Your task to perform on an android device: turn on data saver in the chrome app Image 0: 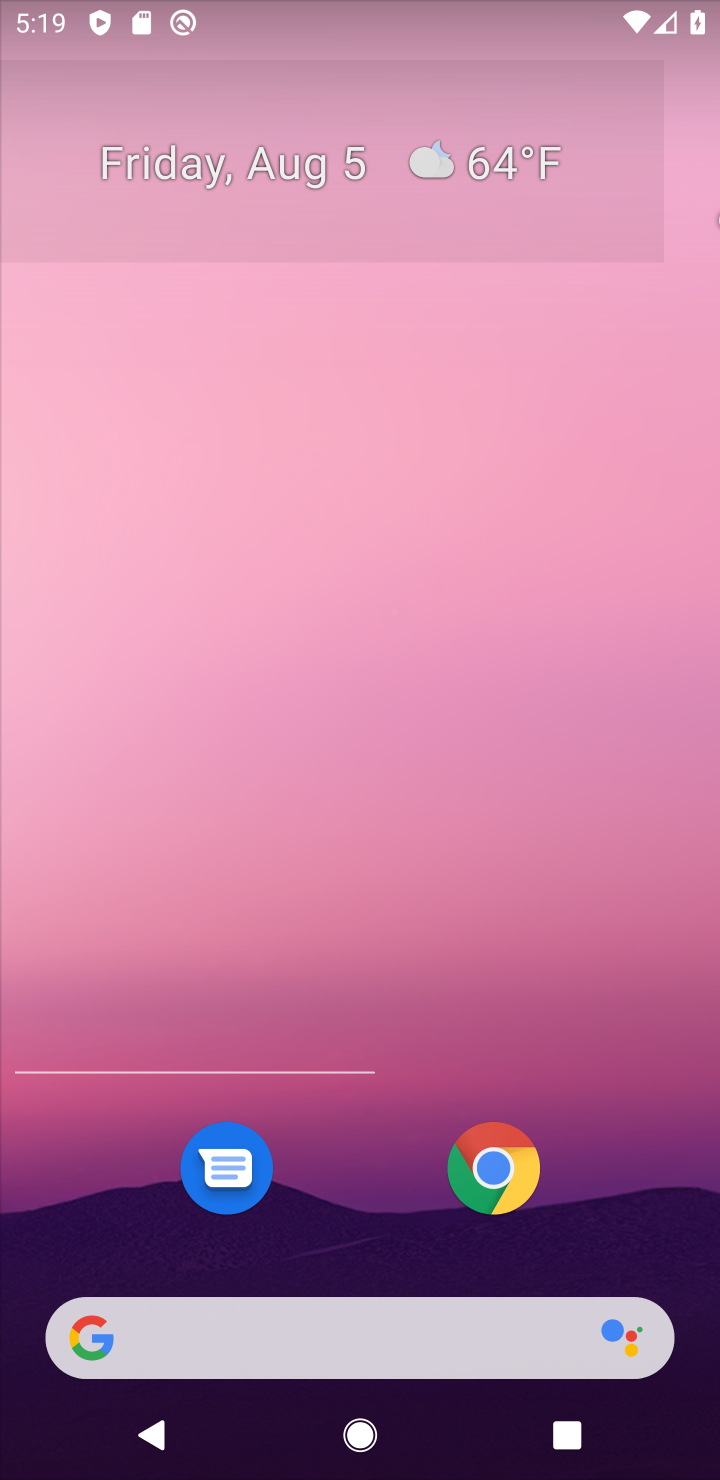
Step 0: press home button
Your task to perform on an android device: turn on data saver in the chrome app Image 1: 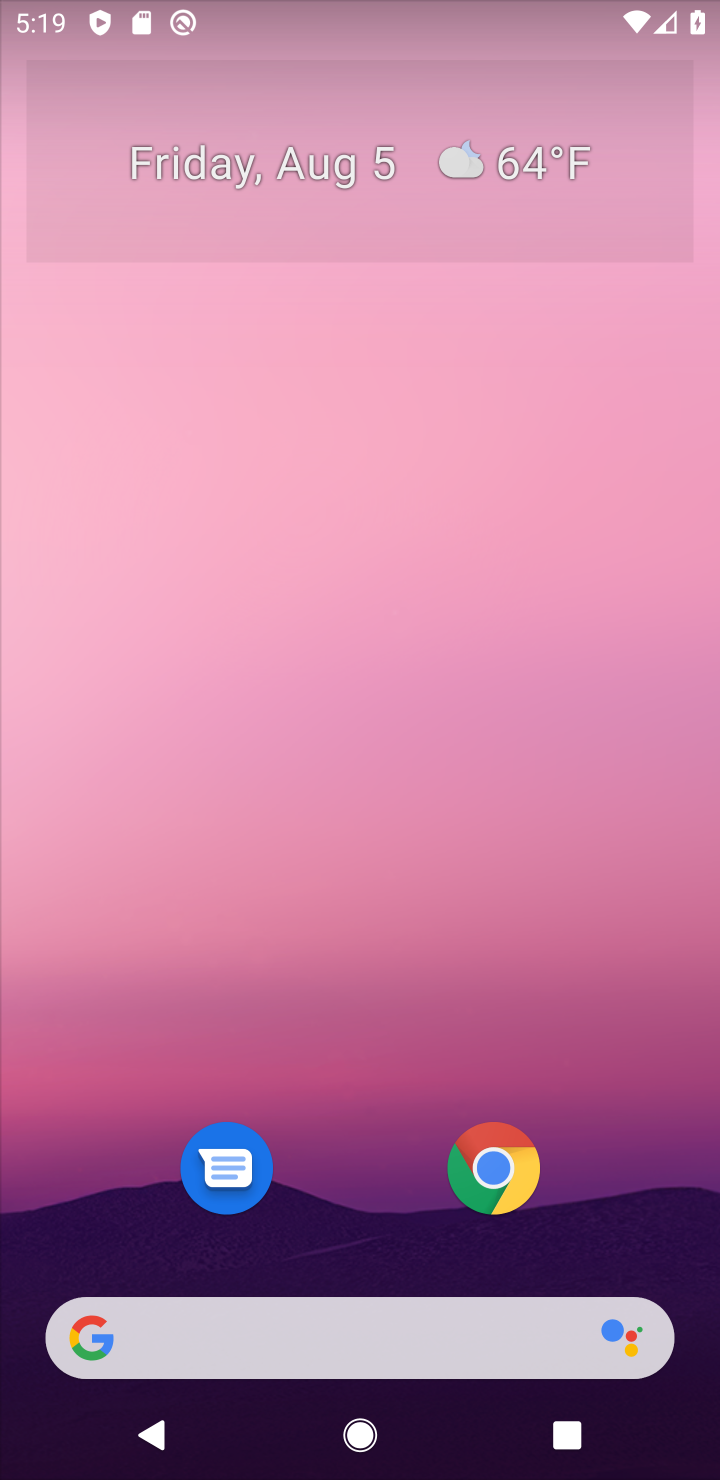
Step 1: click (457, 1180)
Your task to perform on an android device: turn on data saver in the chrome app Image 2: 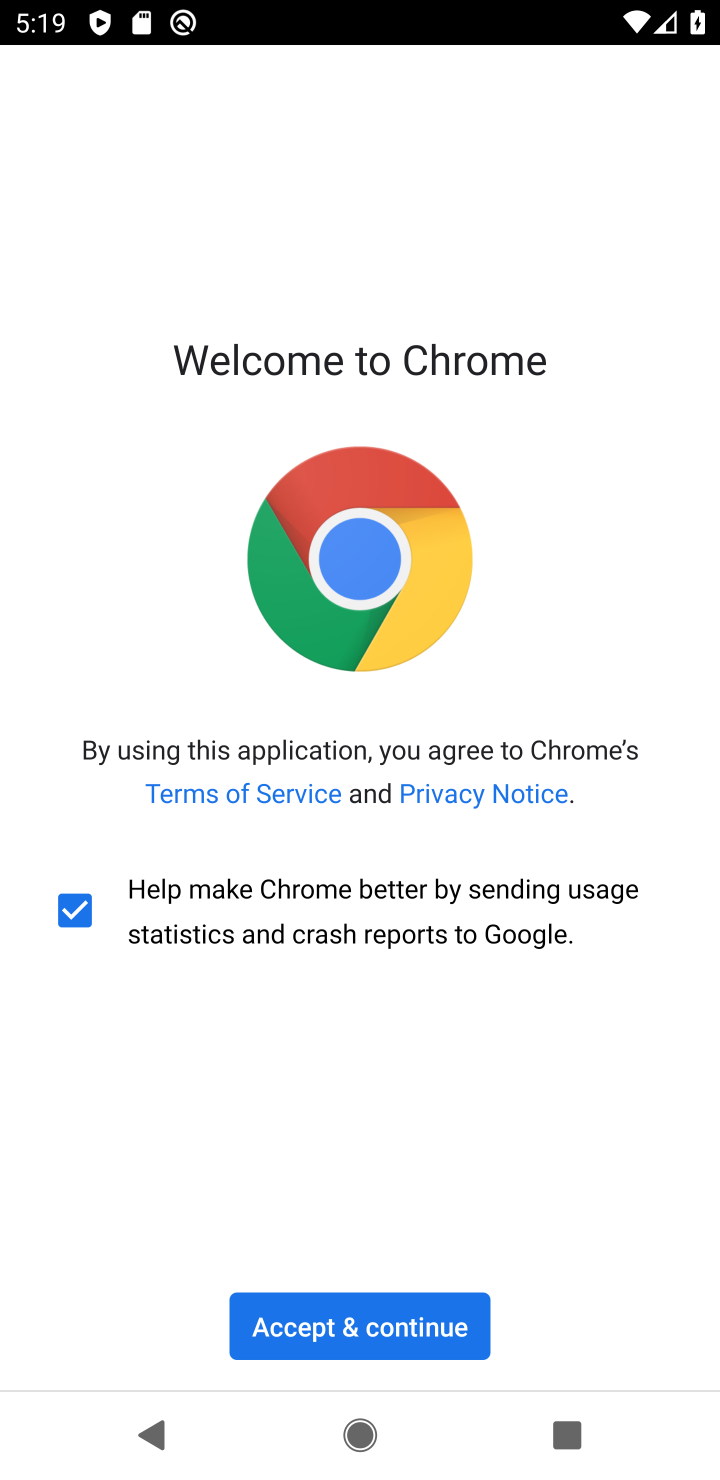
Step 2: click (382, 1325)
Your task to perform on an android device: turn on data saver in the chrome app Image 3: 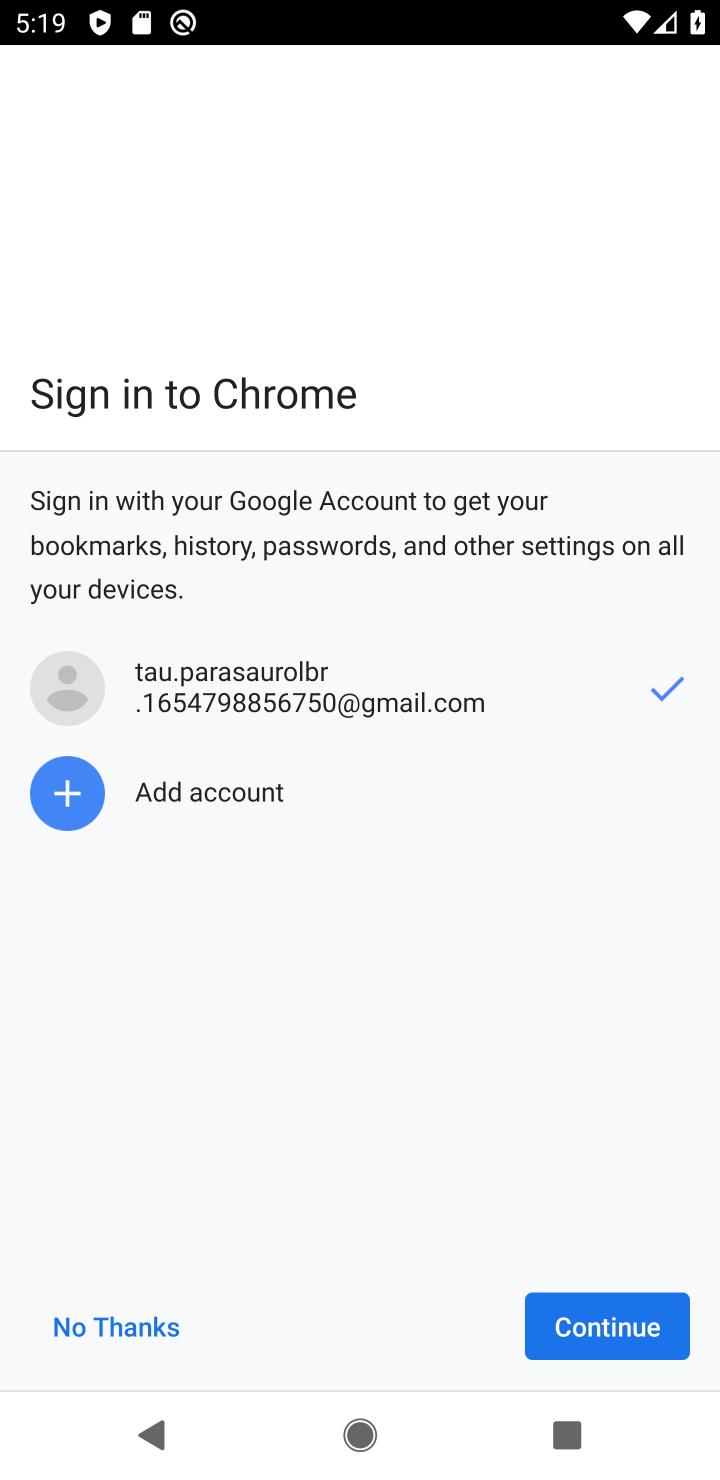
Step 3: click (563, 1327)
Your task to perform on an android device: turn on data saver in the chrome app Image 4: 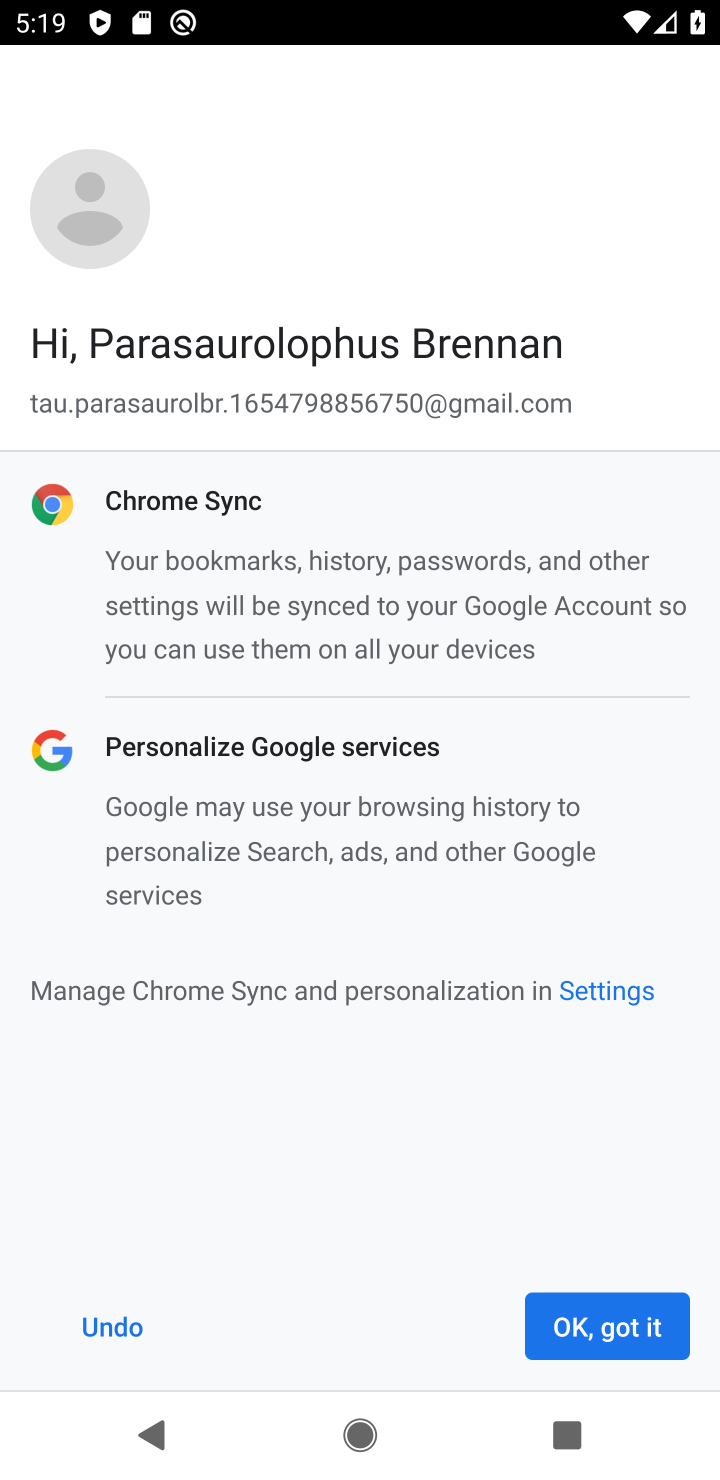
Step 4: click (563, 1327)
Your task to perform on an android device: turn on data saver in the chrome app Image 5: 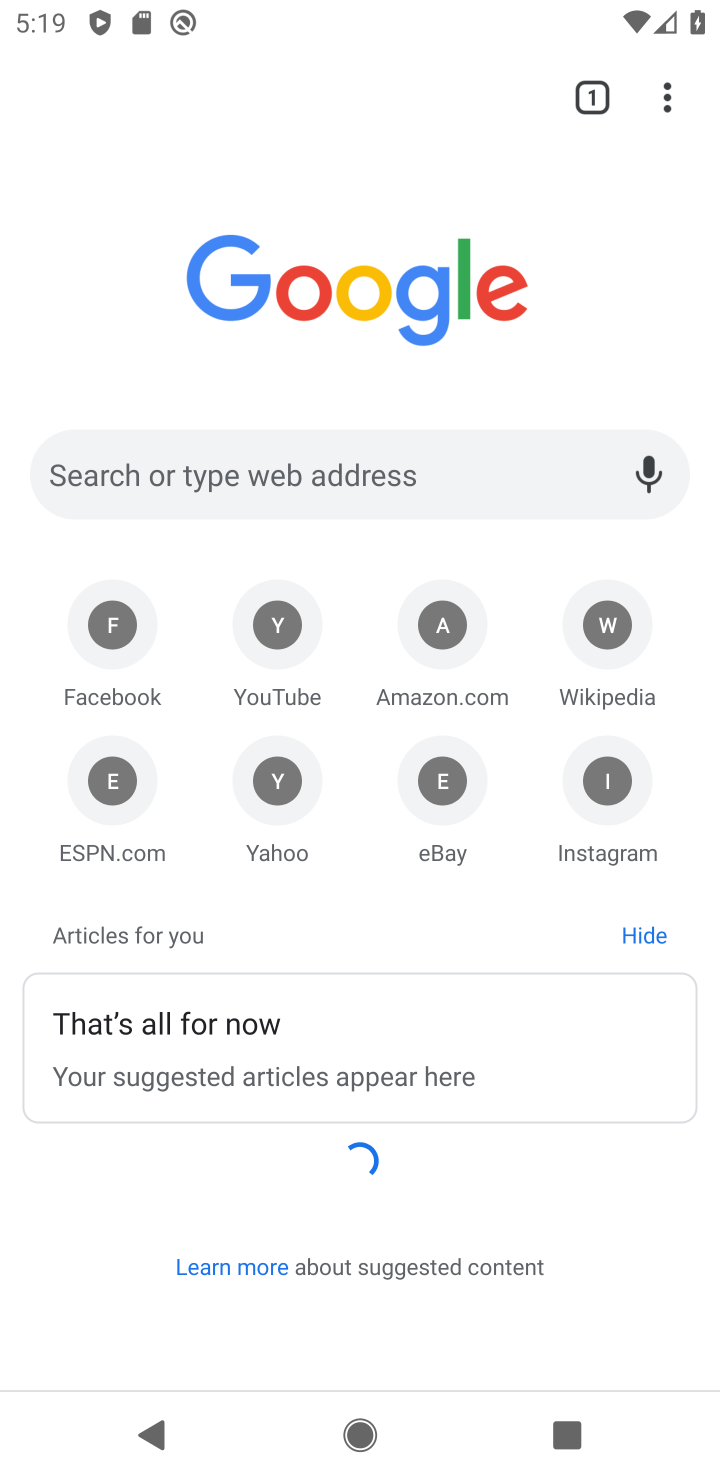
Step 5: drag from (669, 96) to (284, 813)
Your task to perform on an android device: turn on data saver in the chrome app Image 6: 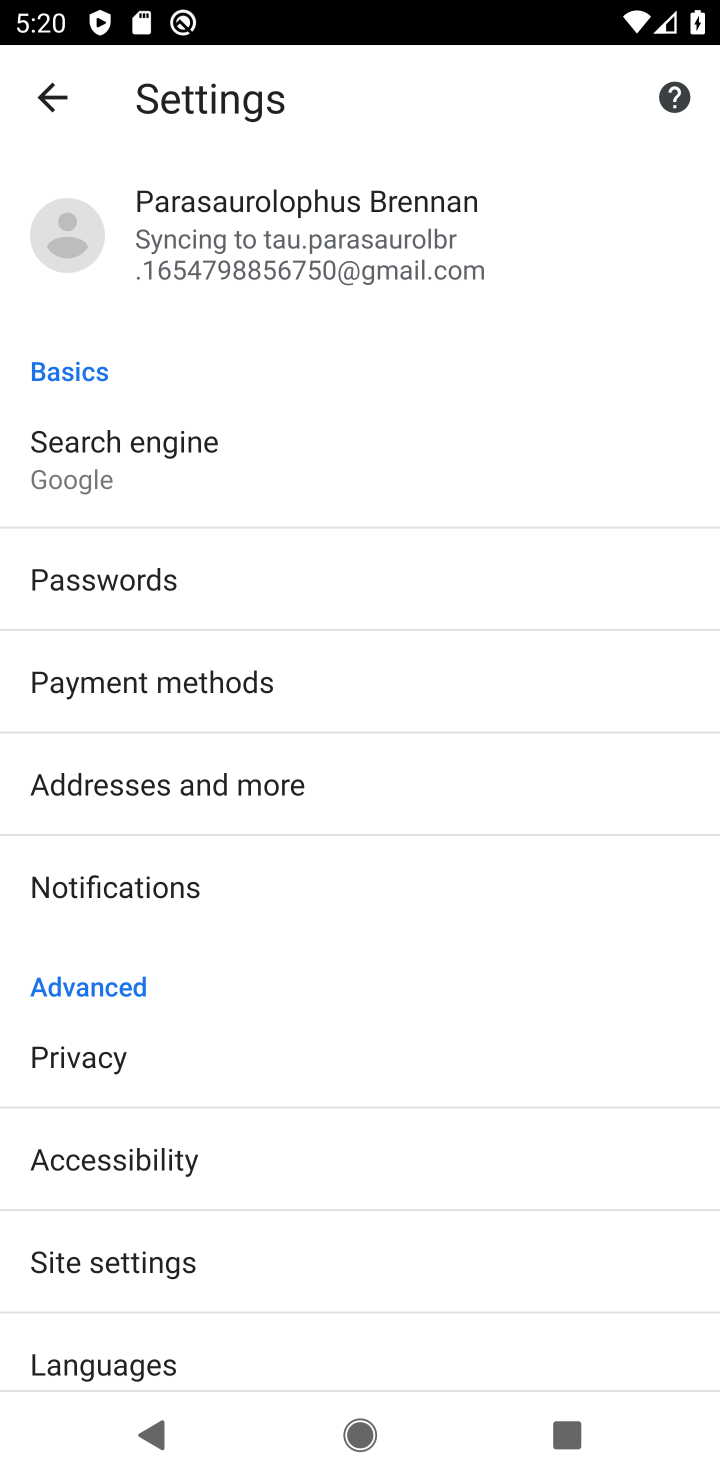
Step 6: drag from (512, 1341) to (479, 455)
Your task to perform on an android device: turn on data saver in the chrome app Image 7: 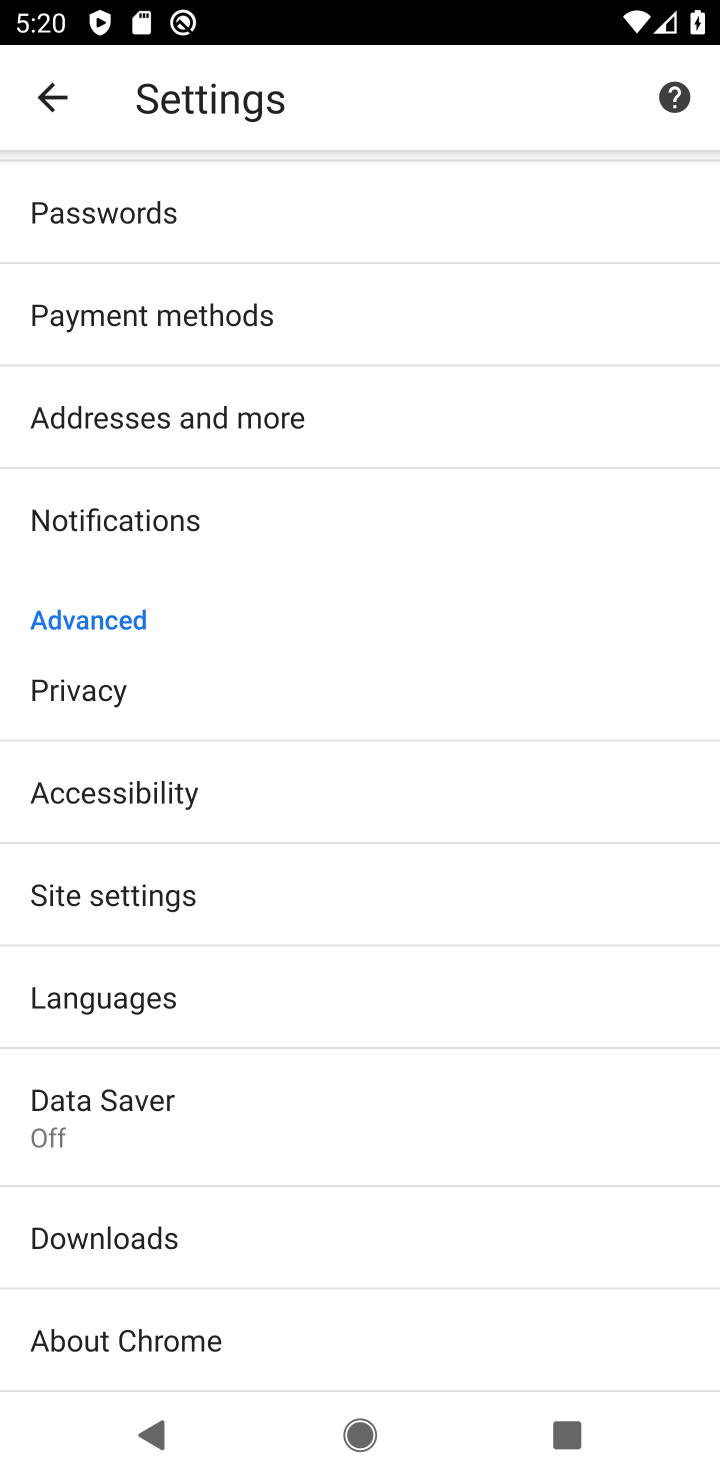
Step 7: click (86, 1102)
Your task to perform on an android device: turn on data saver in the chrome app Image 8: 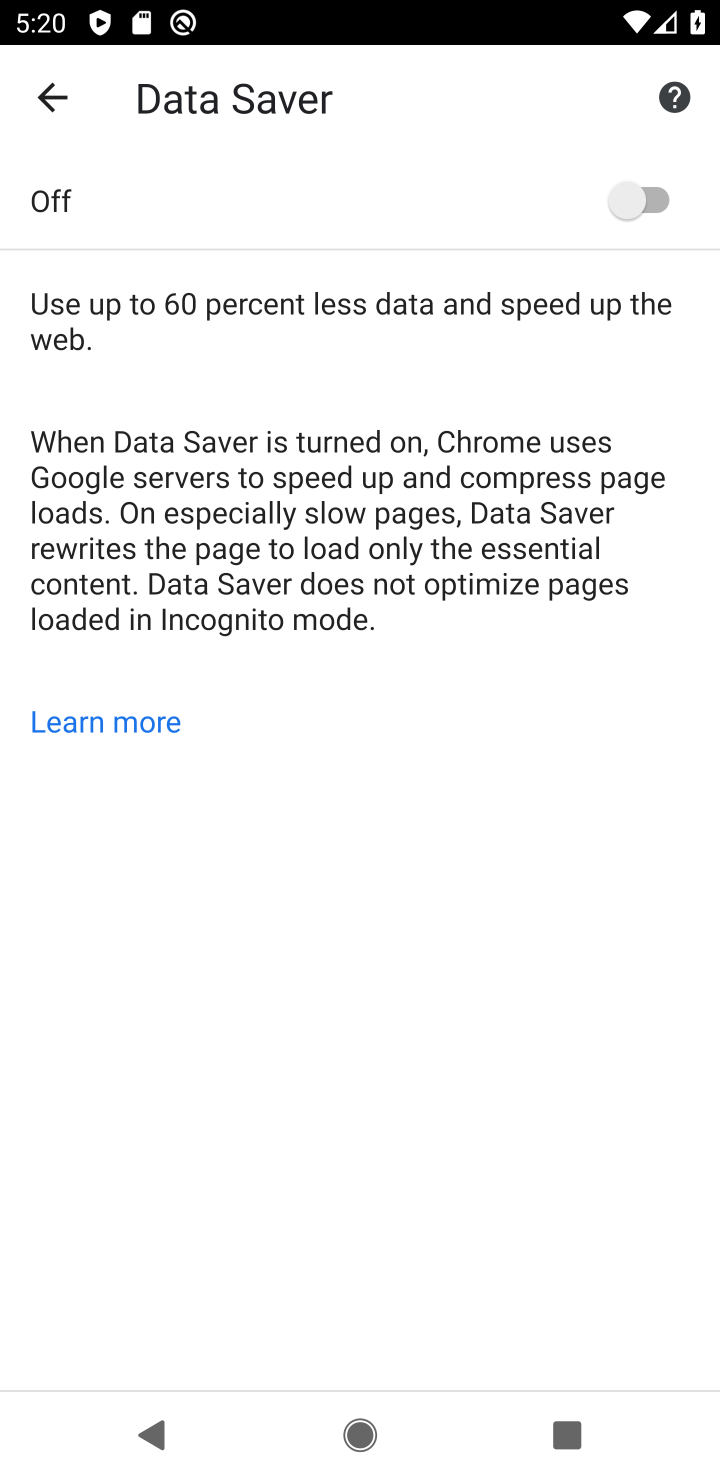
Step 8: click (628, 200)
Your task to perform on an android device: turn on data saver in the chrome app Image 9: 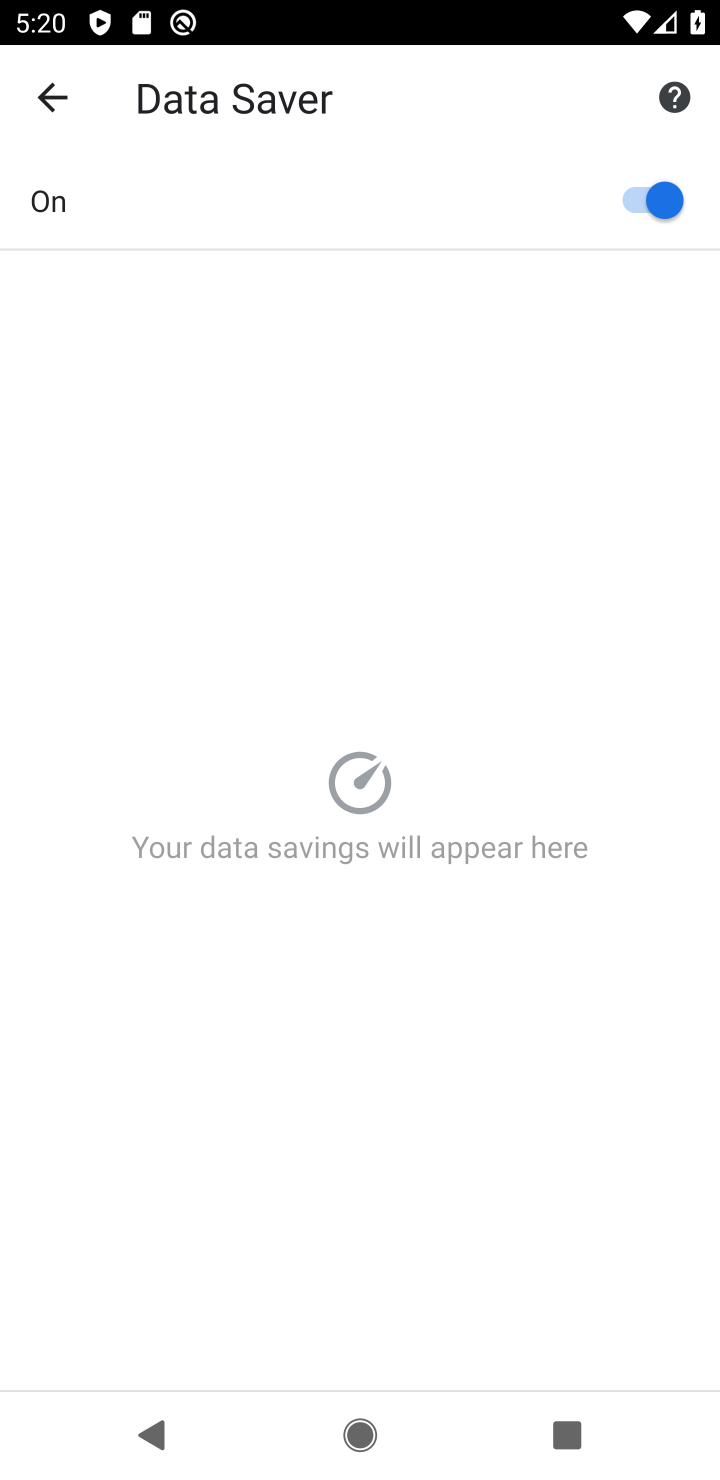
Step 9: task complete